Your task to perform on an android device: turn off location Image 0: 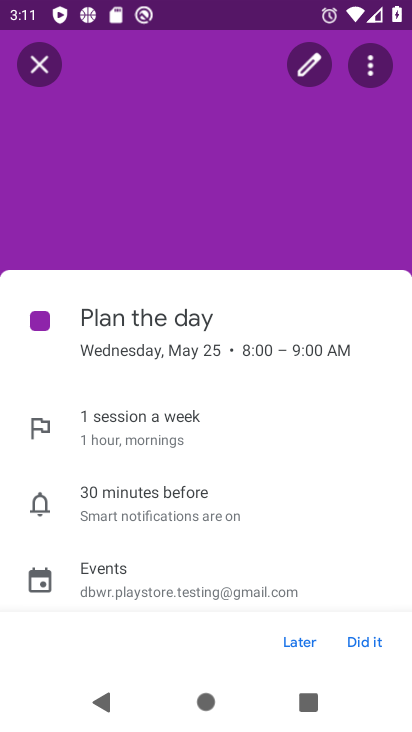
Step 0: press home button
Your task to perform on an android device: turn off location Image 1: 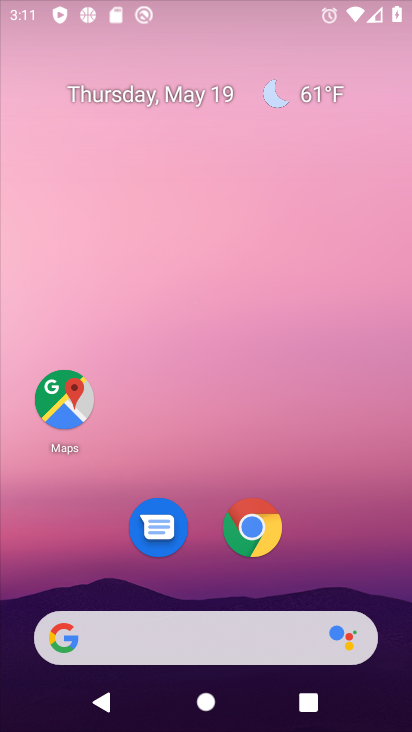
Step 1: drag from (159, 602) to (298, 71)
Your task to perform on an android device: turn off location Image 2: 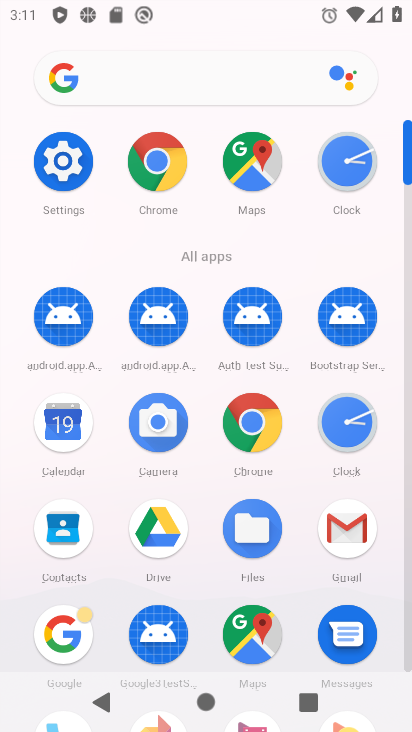
Step 2: click (53, 163)
Your task to perform on an android device: turn off location Image 3: 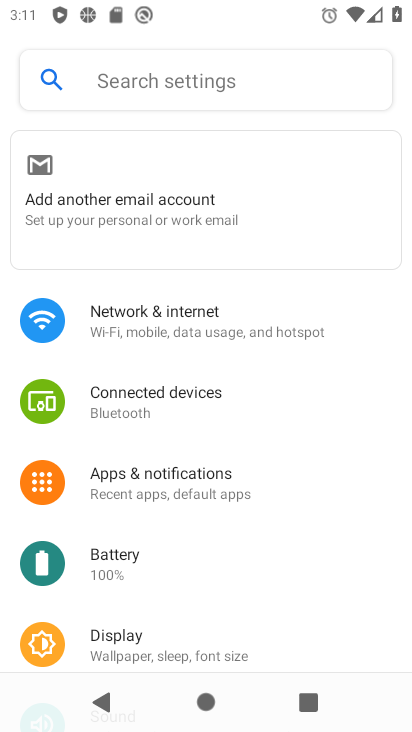
Step 3: drag from (174, 630) to (290, 106)
Your task to perform on an android device: turn off location Image 4: 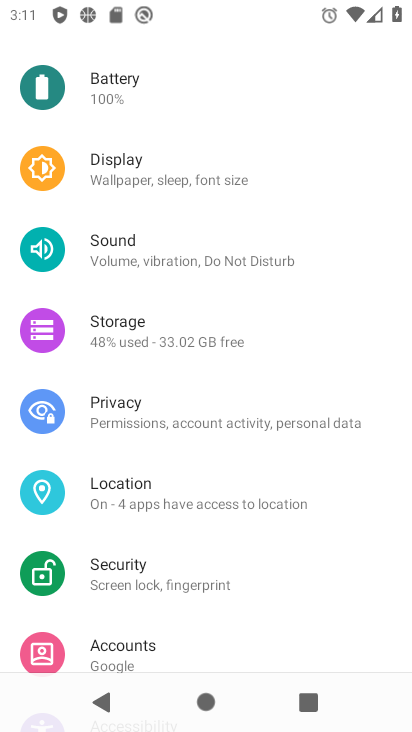
Step 4: click (151, 501)
Your task to perform on an android device: turn off location Image 5: 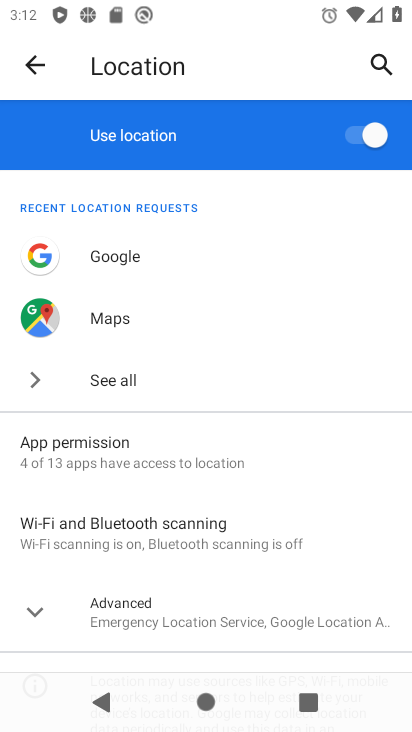
Step 5: click (366, 128)
Your task to perform on an android device: turn off location Image 6: 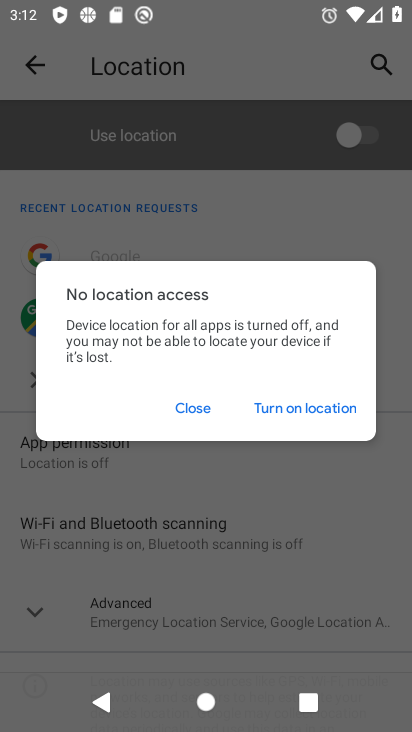
Step 6: task complete